Your task to perform on an android device: What's the weather going to be tomorrow? Image 0: 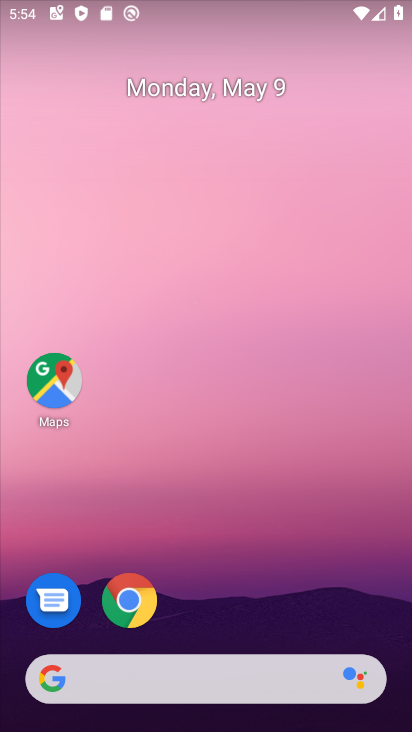
Step 0: click (328, 336)
Your task to perform on an android device: What's the weather going to be tomorrow? Image 1: 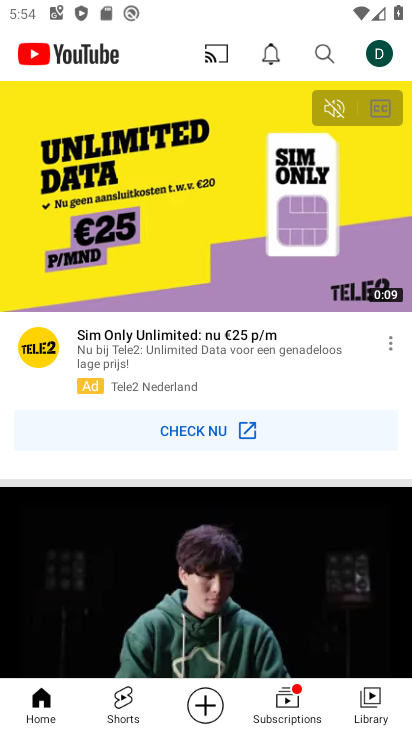
Step 1: press home button
Your task to perform on an android device: What's the weather going to be tomorrow? Image 2: 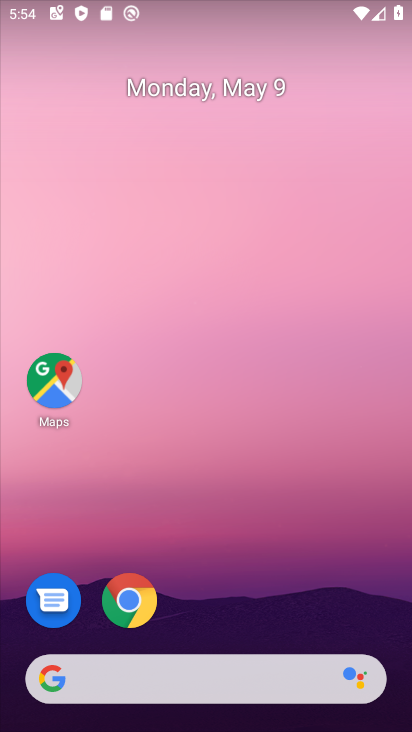
Step 2: click (204, 686)
Your task to perform on an android device: What's the weather going to be tomorrow? Image 3: 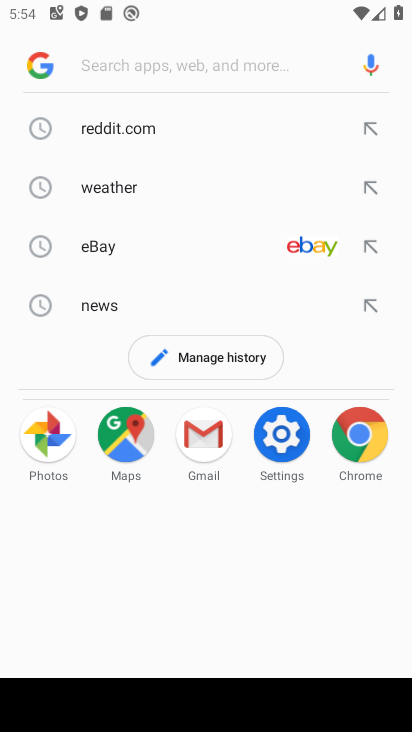
Step 3: click (126, 190)
Your task to perform on an android device: What's the weather going to be tomorrow? Image 4: 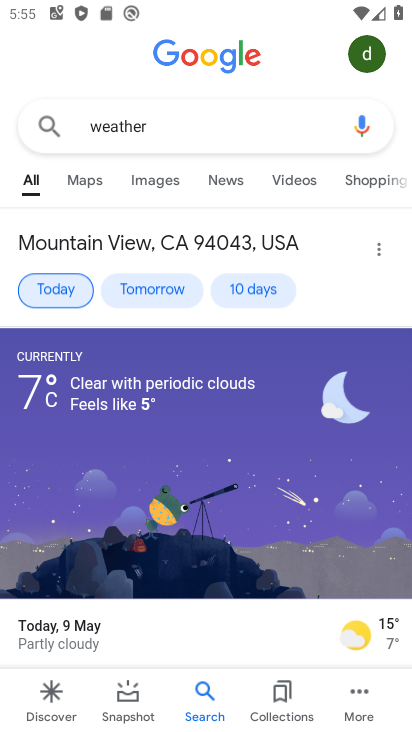
Step 4: task complete